Your task to perform on an android device: visit the assistant section in the google photos Image 0: 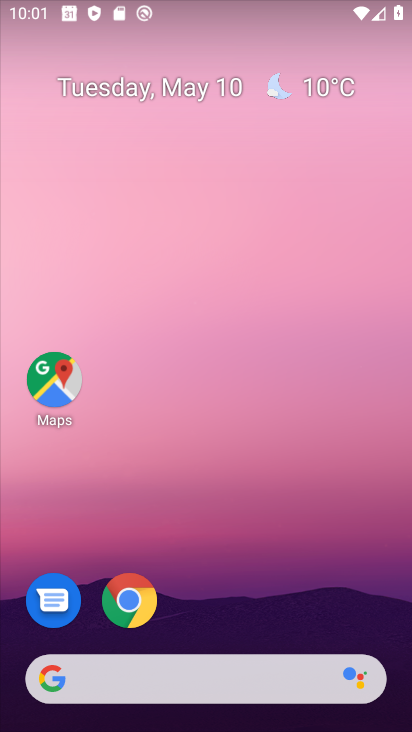
Step 0: drag from (305, 609) to (312, 155)
Your task to perform on an android device: visit the assistant section in the google photos Image 1: 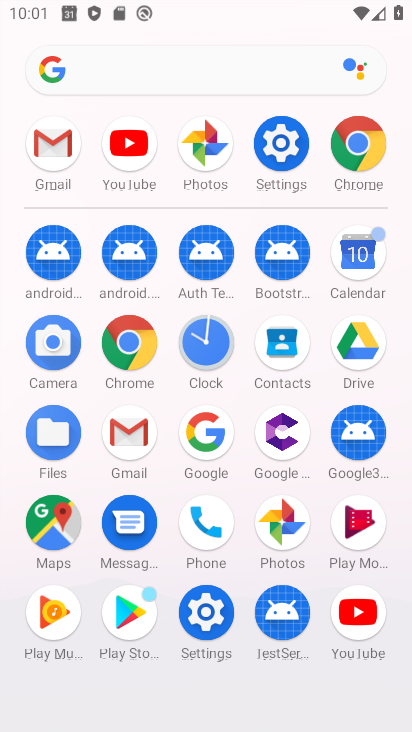
Step 1: click (216, 159)
Your task to perform on an android device: visit the assistant section in the google photos Image 2: 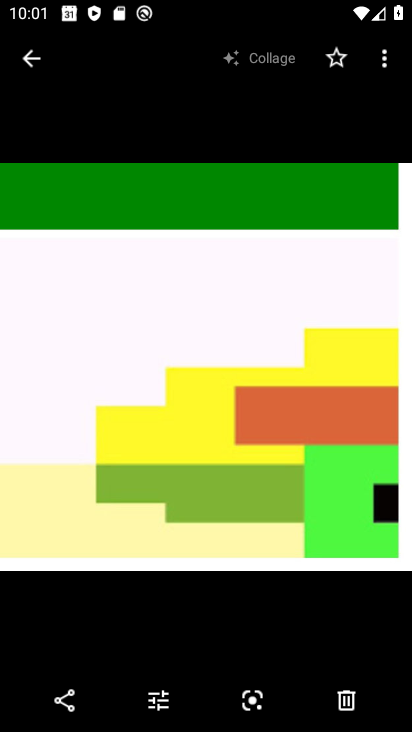
Step 2: click (27, 72)
Your task to perform on an android device: visit the assistant section in the google photos Image 3: 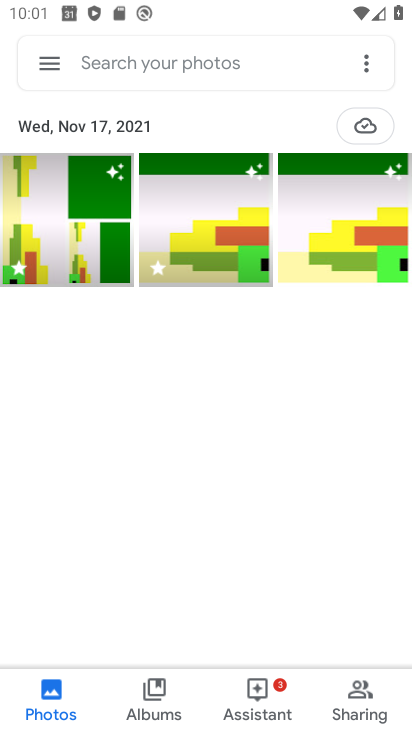
Step 3: click (269, 694)
Your task to perform on an android device: visit the assistant section in the google photos Image 4: 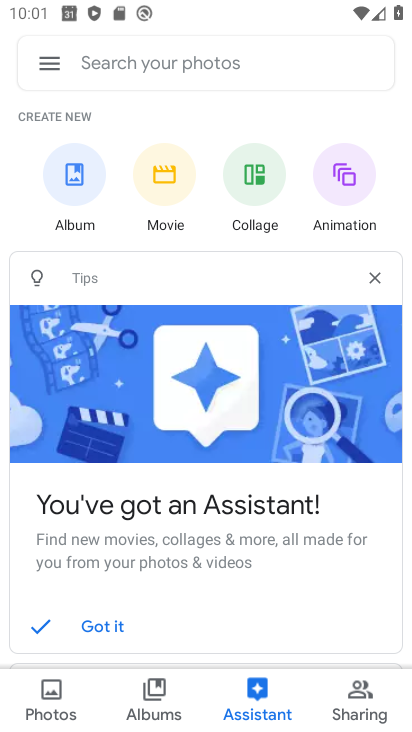
Step 4: task complete